Your task to perform on an android device: Clear all items from cart on ebay. Search for bose soundlink on ebay, select the first entry, add it to the cart, then select checkout. Image 0: 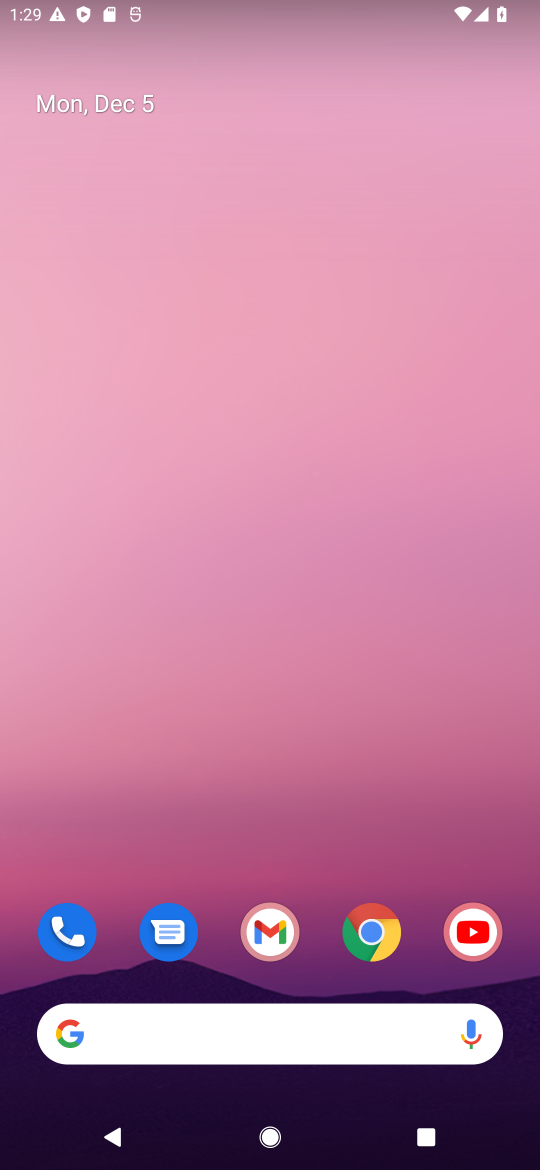
Step 0: click (374, 919)
Your task to perform on an android device: Clear all items from cart on ebay. Search for bose soundlink on ebay, select the first entry, add it to the cart, then select checkout. Image 1: 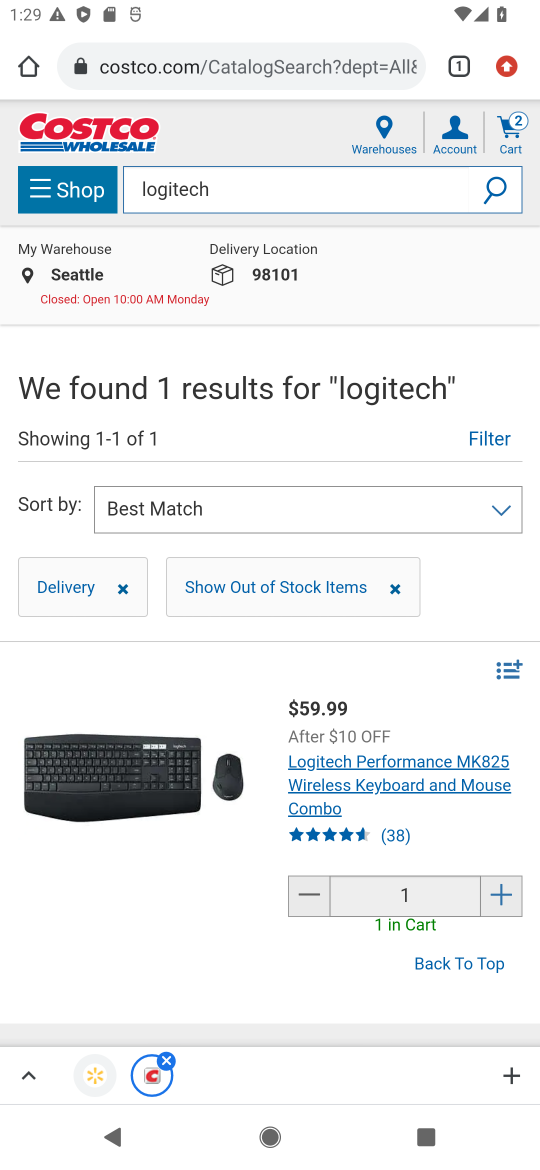
Step 1: click (250, 72)
Your task to perform on an android device: Clear all items from cart on ebay. Search for bose soundlink on ebay, select the first entry, add it to the cart, then select checkout. Image 2: 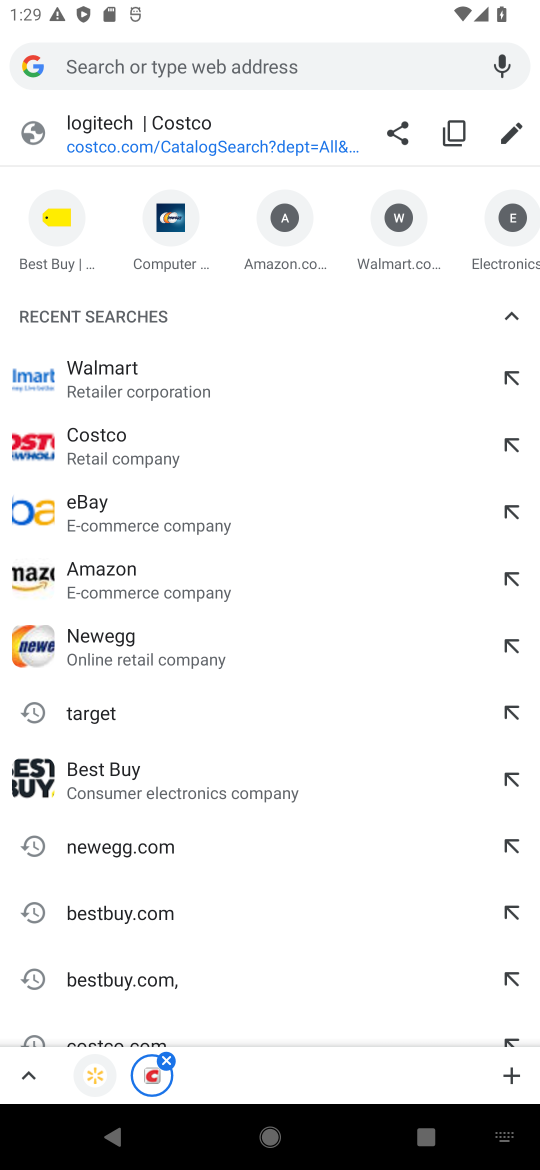
Step 2: click (118, 514)
Your task to perform on an android device: Clear all items from cart on ebay. Search for bose soundlink on ebay, select the first entry, add it to the cart, then select checkout. Image 3: 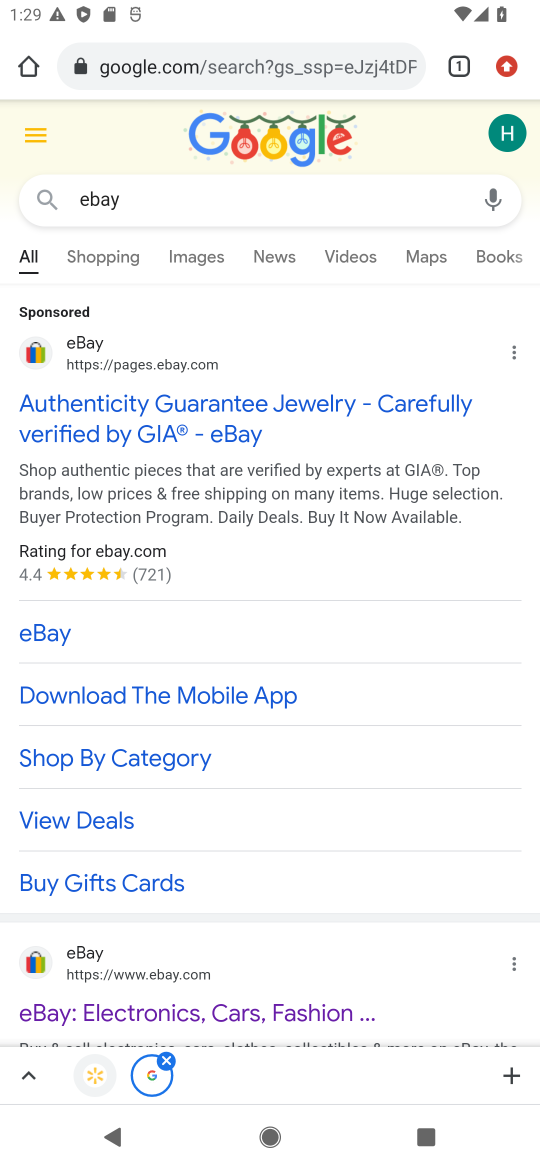
Step 3: click (277, 399)
Your task to perform on an android device: Clear all items from cart on ebay. Search for bose soundlink on ebay, select the first entry, add it to the cart, then select checkout. Image 4: 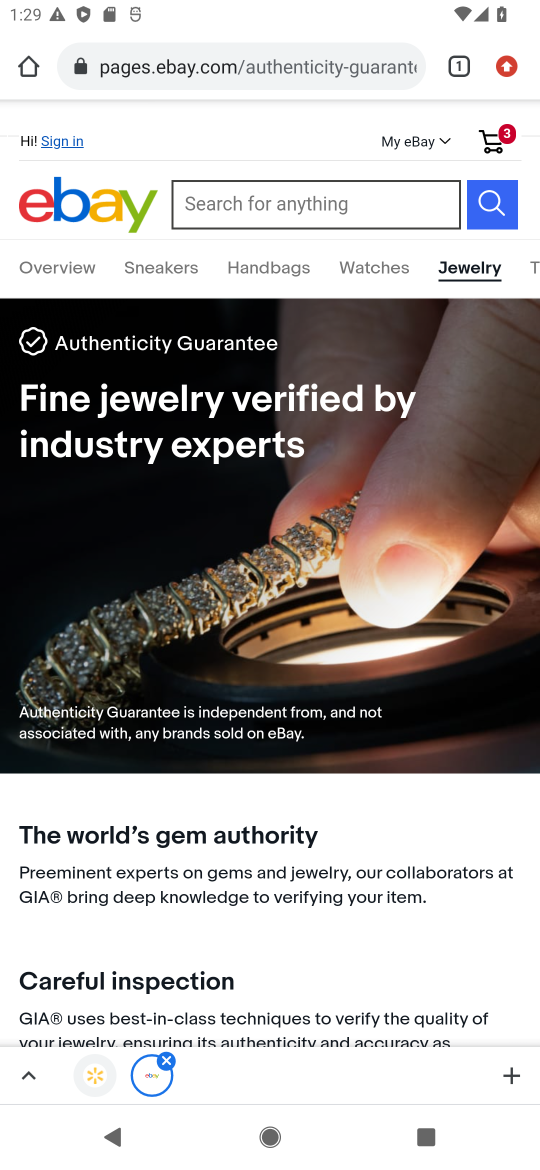
Step 4: click (342, 197)
Your task to perform on an android device: Clear all items from cart on ebay. Search for bose soundlink on ebay, select the first entry, add it to the cart, then select checkout. Image 5: 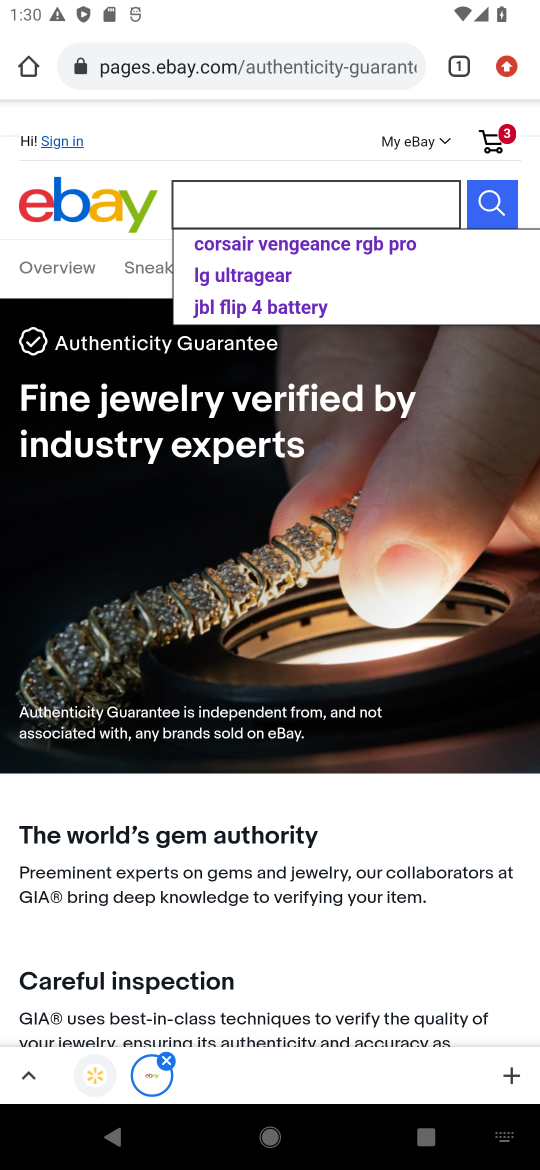
Step 5: type "bose soundlink"
Your task to perform on an android device: Clear all items from cart on ebay. Search for bose soundlink on ebay, select the first entry, add it to the cart, then select checkout. Image 6: 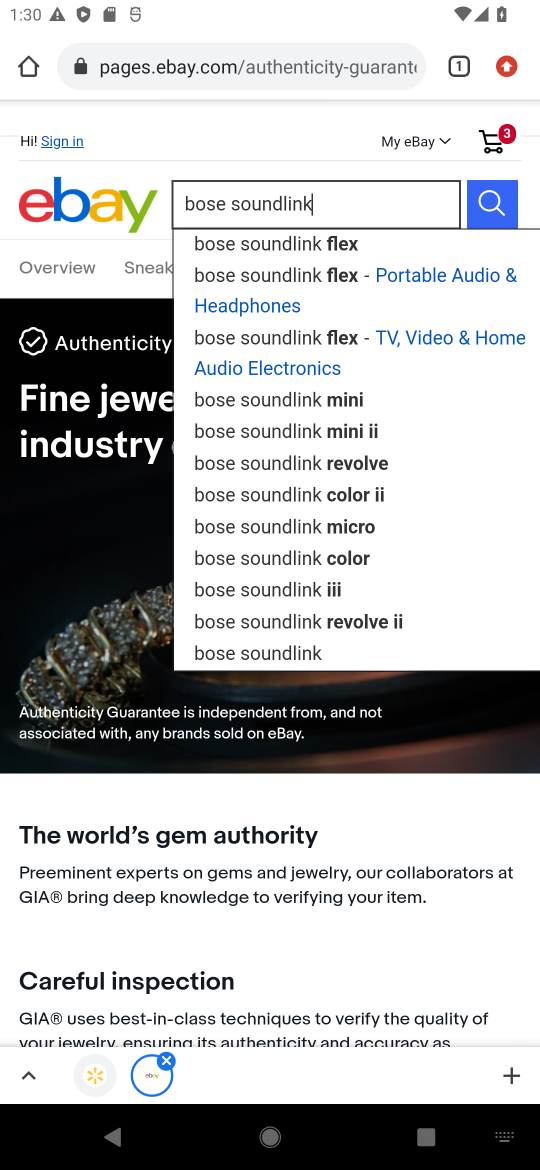
Step 6: click (286, 247)
Your task to perform on an android device: Clear all items from cart on ebay. Search for bose soundlink on ebay, select the first entry, add it to the cart, then select checkout. Image 7: 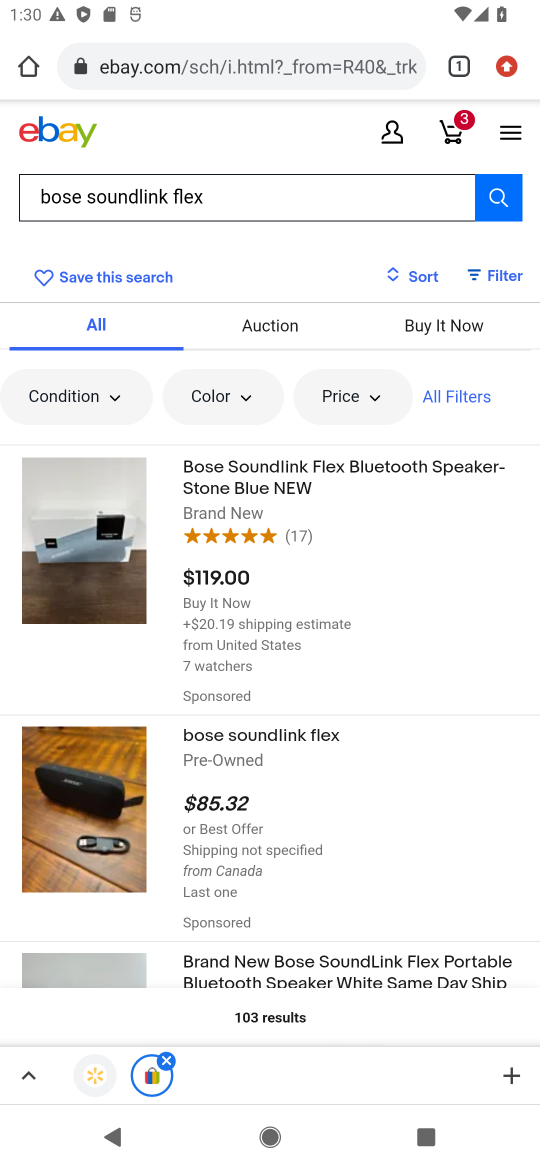
Step 7: click (327, 514)
Your task to perform on an android device: Clear all items from cart on ebay. Search for bose soundlink on ebay, select the first entry, add it to the cart, then select checkout. Image 8: 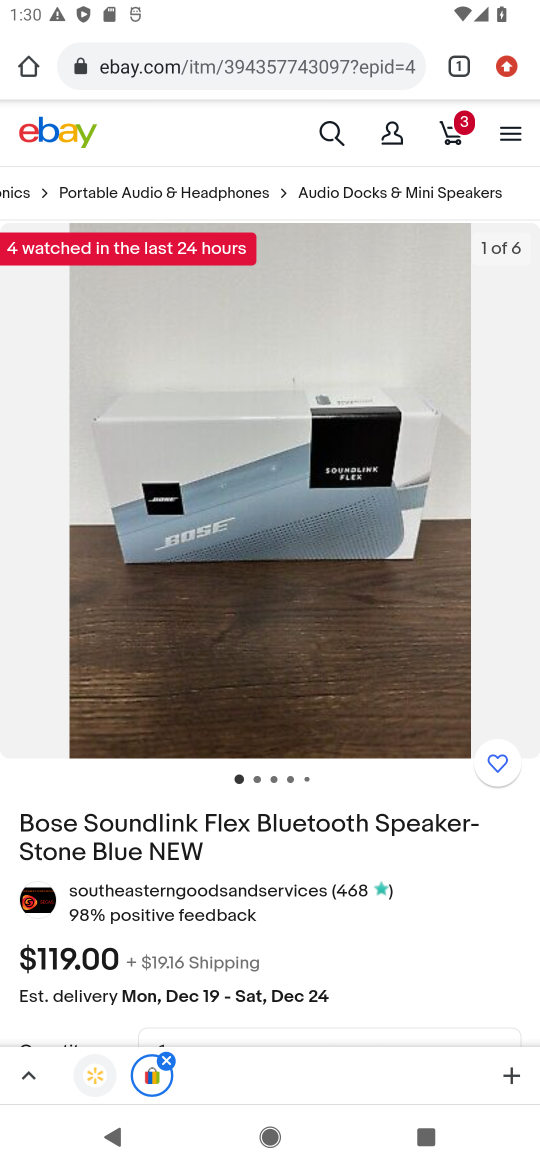
Step 8: drag from (393, 932) to (343, 270)
Your task to perform on an android device: Clear all items from cart on ebay. Search for bose soundlink on ebay, select the first entry, add it to the cart, then select checkout. Image 9: 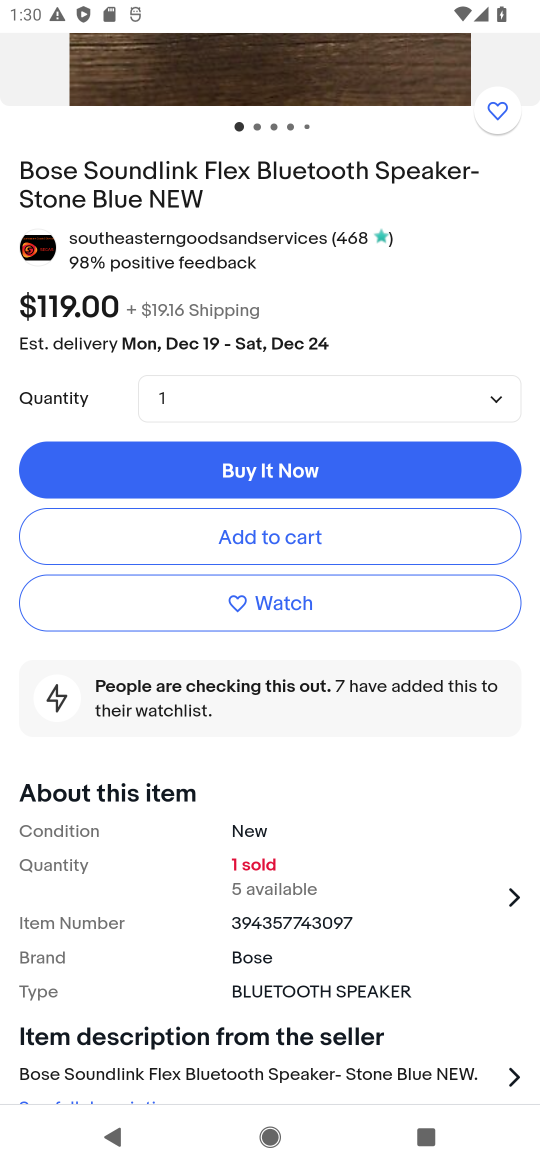
Step 9: drag from (253, 109) to (286, 967)
Your task to perform on an android device: Clear all items from cart on ebay. Search for bose soundlink on ebay, select the first entry, add it to the cart, then select checkout. Image 10: 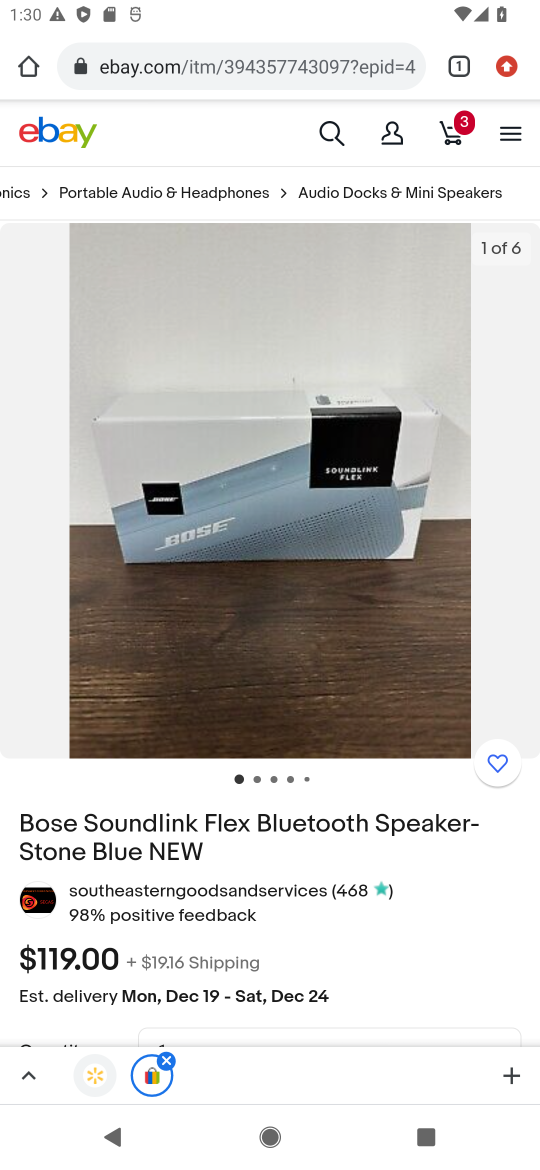
Step 10: click (457, 131)
Your task to perform on an android device: Clear all items from cart on ebay. Search for bose soundlink on ebay, select the first entry, add it to the cart, then select checkout. Image 11: 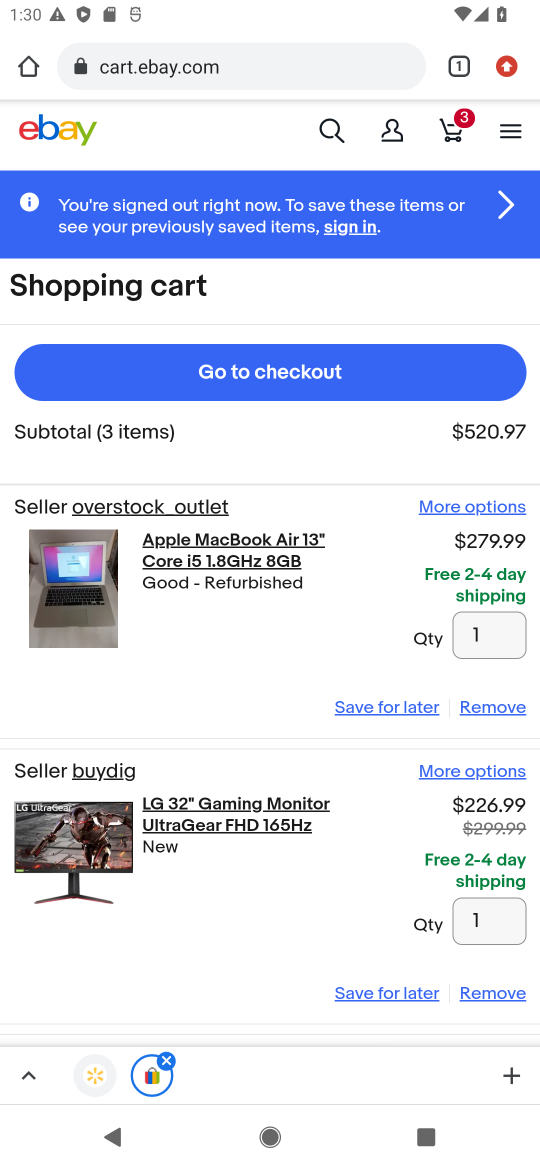
Step 11: click (495, 703)
Your task to perform on an android device: Clear all items from cart on ebay. Search for bose soundlink on ebay, select the first entry, add it to the cart, then select checkout. Image 12: 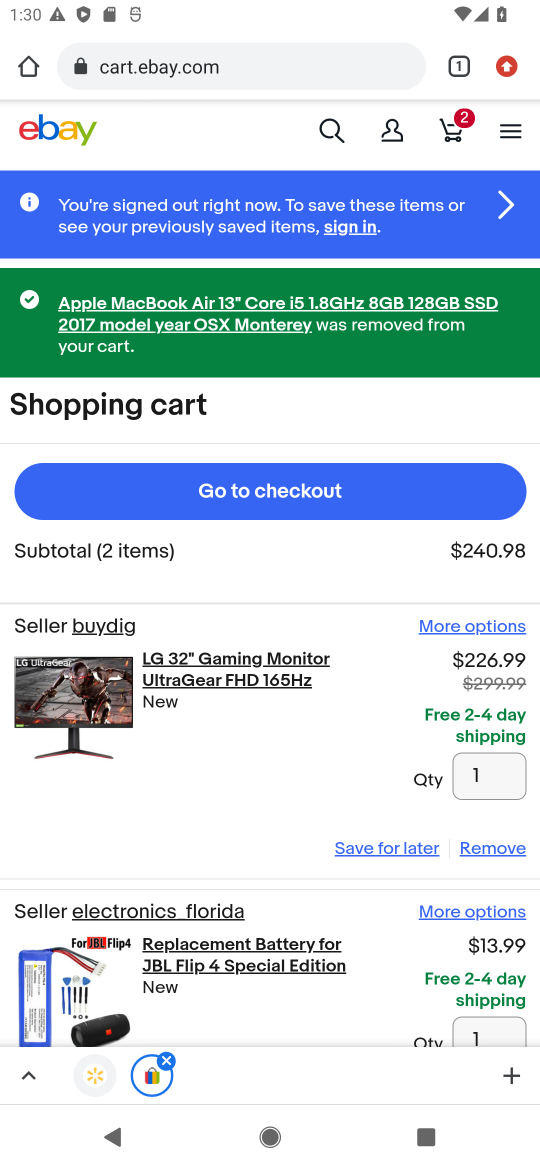
Step 12: click (497, 852)
Your task to perform on an android device: Clear all items from cart on ebay. Search for bose soundlink on ebay, select the first entry, add it to the cart, then select checkout. Image 13: 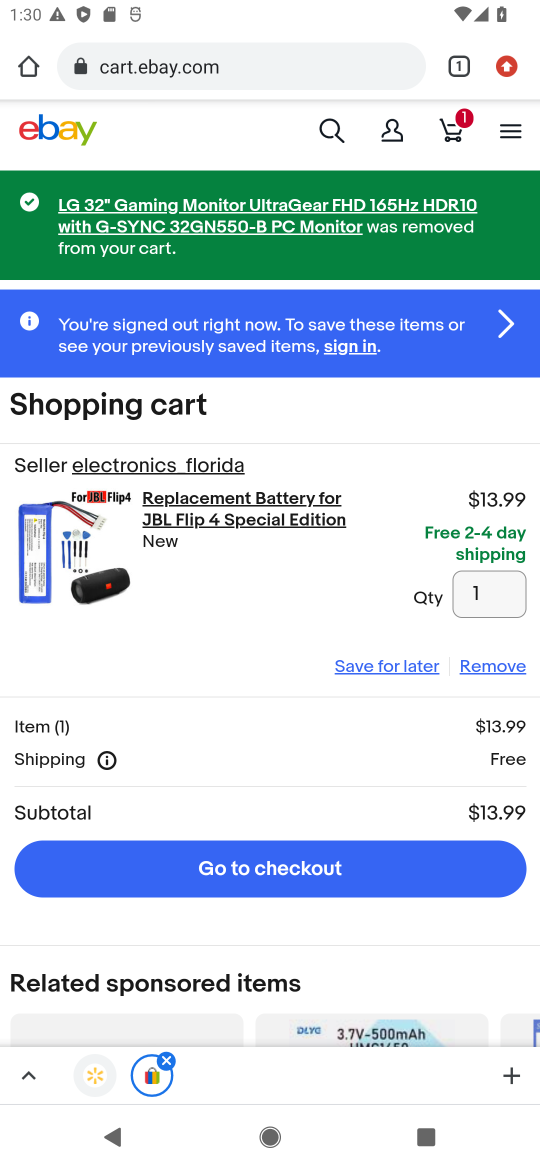
Step 13: click (487, 668)
Your task to perform on an android device: Clear all items from cart on ebay. Search for bose soundlink on ebay, select the first entry, add it to the cart, then select checkout. Image 14: 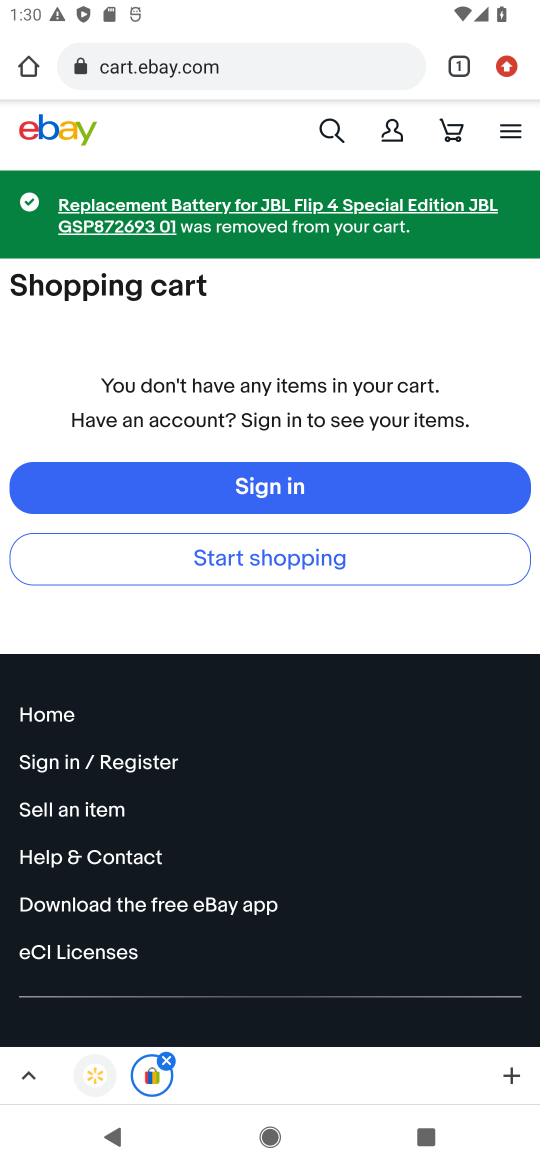
Step 14: click (334, 126)
Your task to perform on an android device: Clear all items from cart on ebay. Search for bose soundlink on ebay, select the first entry, add it to the cart, then select checkout. Image 15: 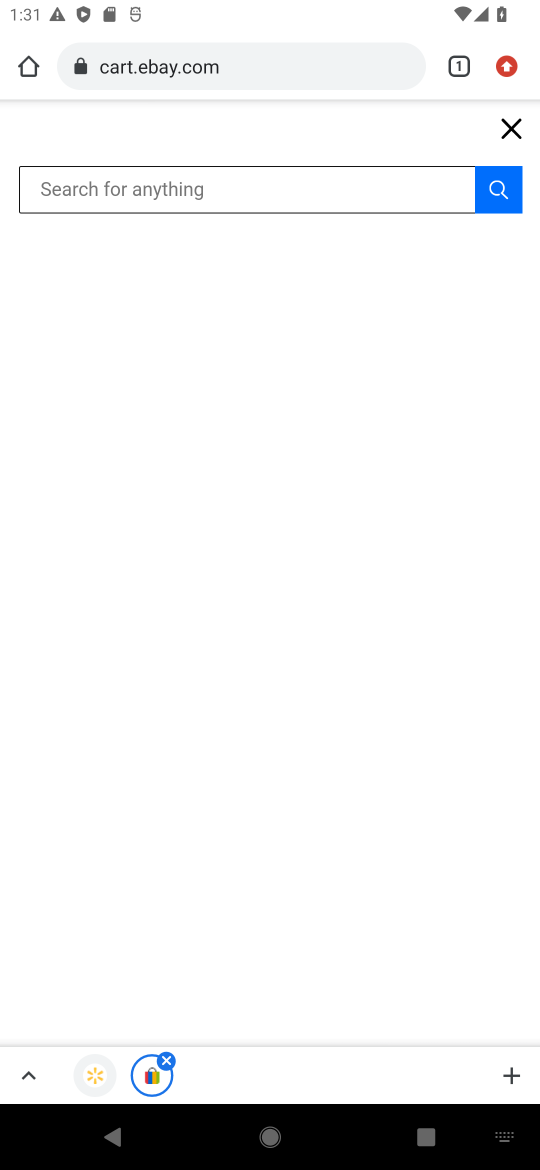
Step 15: click (328, 192)
Your task to perform on an android device: Clear all items from cart on ebay. Search for bose soundlink on ebay, select the first entry, add it to the cart, then select checkout. Image 16: 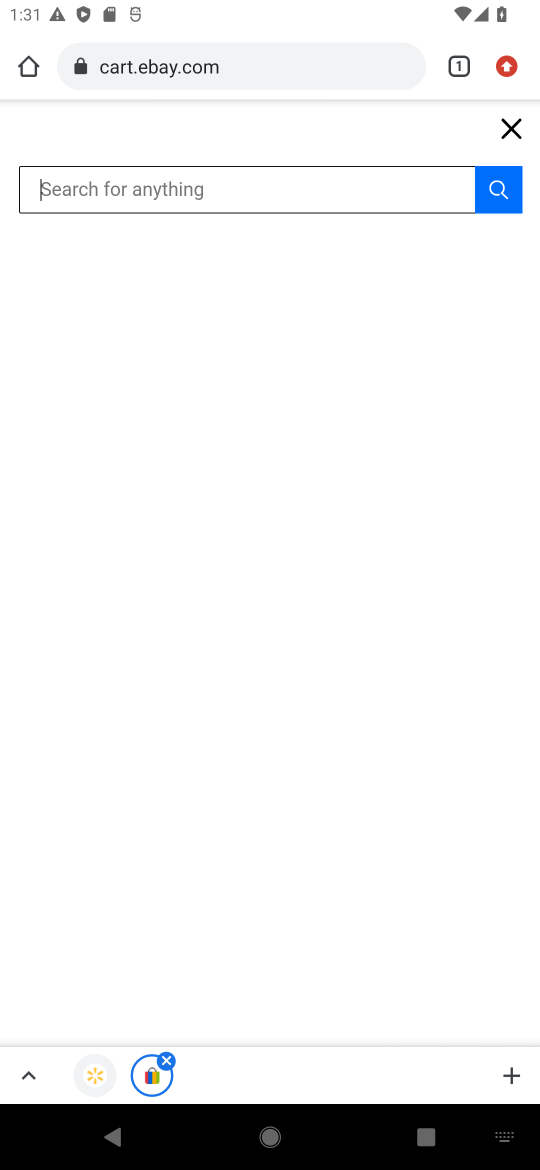
Step 16: type "bose soundlink"
Your task to perform on an android device: Clear all items from cart on ebay. Search for bose soundlink on ebay, select the first entry, add it to the cart, then select checkout. Image 17: 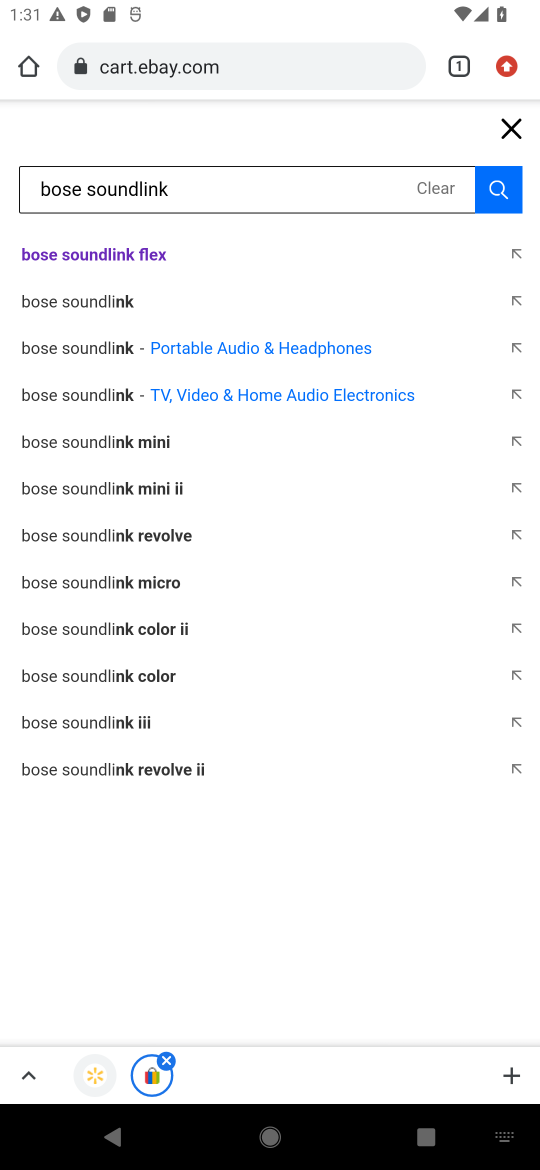
Step 17: click (135, 256)
Your task to perform on an android device: Clear all items from cart on ebay. Search for bose soundlink on ebay, select the first entry, add it to the cart, then select checkout. Image 18: 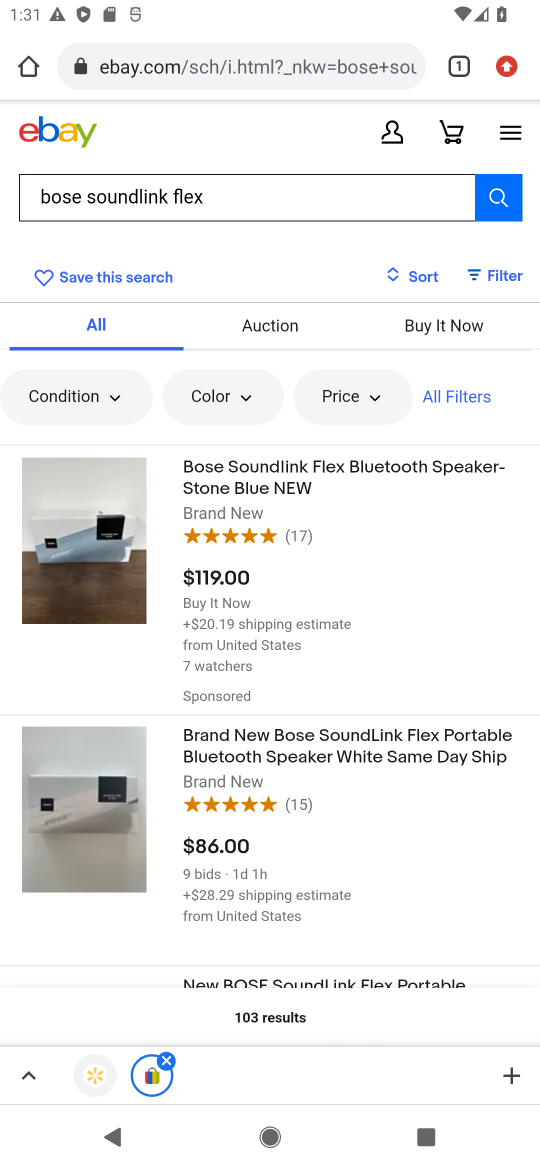
Step 18: click (346, 620)
Your task to perform on an android device: Clear all items from cart on ebay. Search for bose soundlink on ebay, select the first entry, add it to the cart, then select checkout. Image 19: 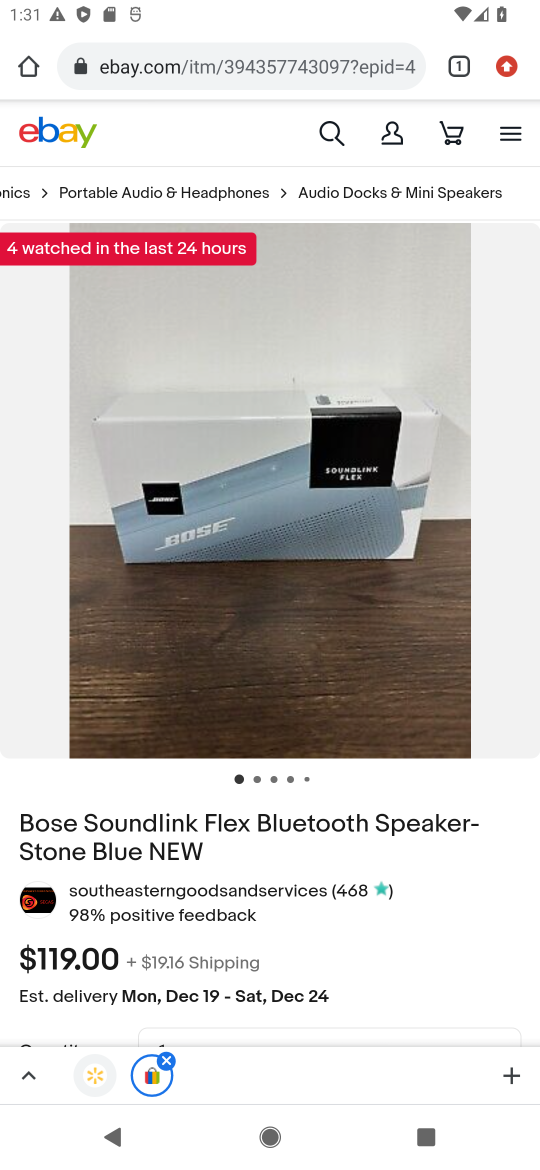
Step 19: drag from (371, 987) to (378, 285)
Your task to perform on an android device: Clear all items from cart on ebay. Search for bose soundlink on ebay, select the first entry, add it to the cart, then select checkout. Image 20: 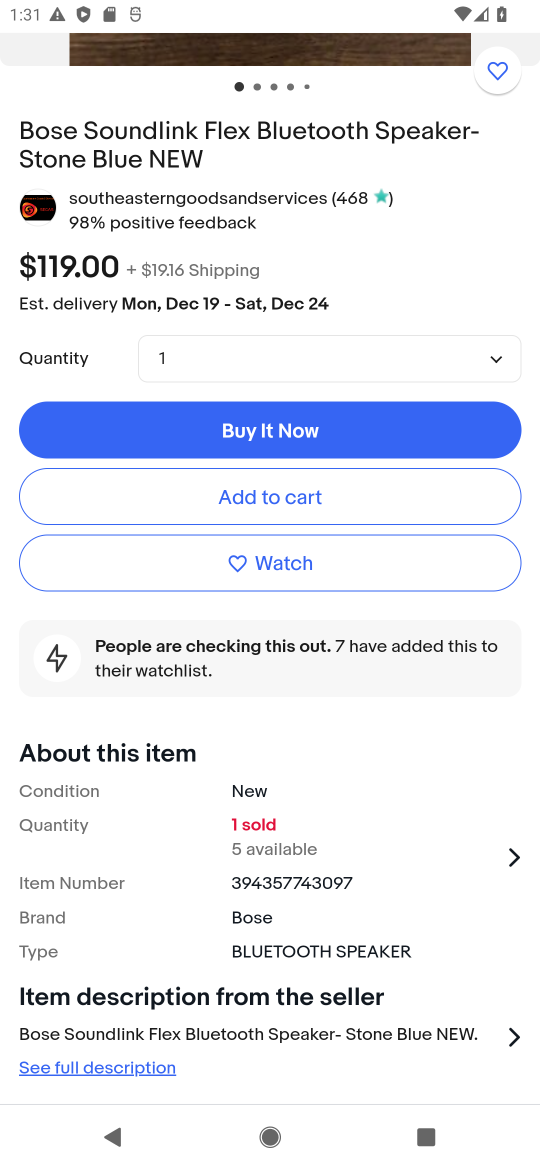
Step 20: click (323, 497)
Your task to perform on an android device: Clear all items from cart on ebay. Search for bose soundlink on ebay, select the first entry, add it to the cart, then select checkout. Image 21: 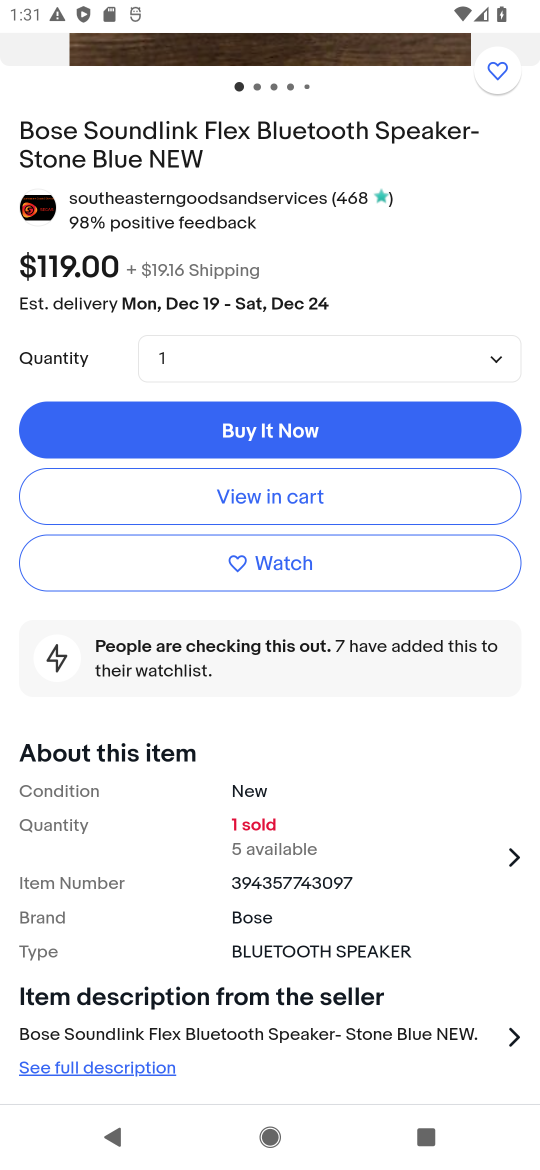
Step 21: click (254, 515)
Your task to perform on an android device: Clear all items from cart on ebay. Search for bose soundlink on ebay, select the first entry, add it to the cart, then select checkout. Image 22: 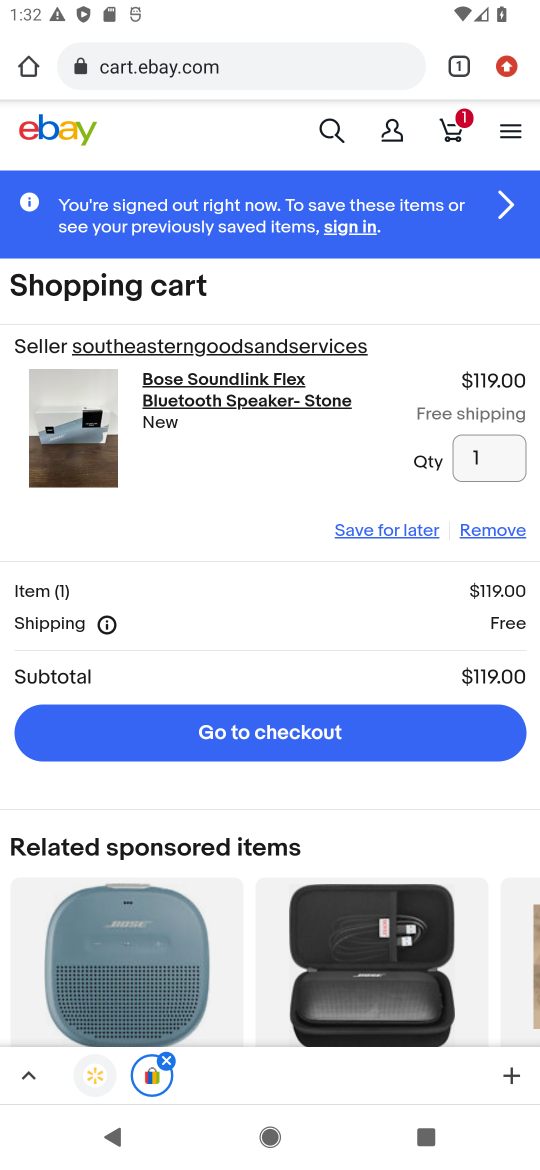
Step 22: click (246, 744)
Your task to perform on an android device: Clear all items from cart on ebay. Search for bose soundlink on ebay, select the first entry, add it to the cart, then select checkout. Image 23: 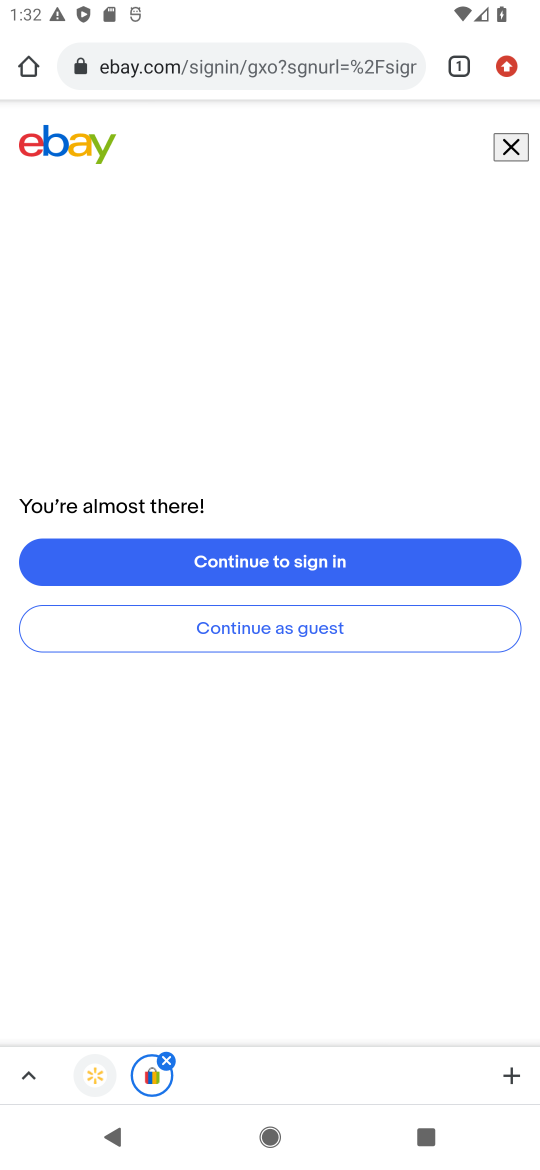
Step 23: task complete